Your task to perform on an android device: check storage Image 0: 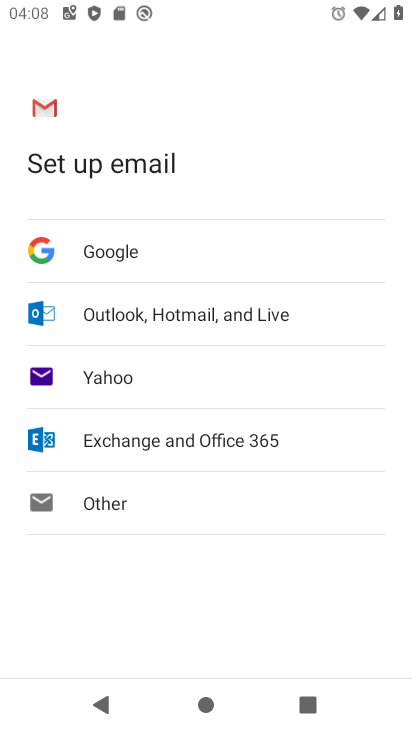
Step 0: press home button
Your task to perform on an android device: check storage Image 1: 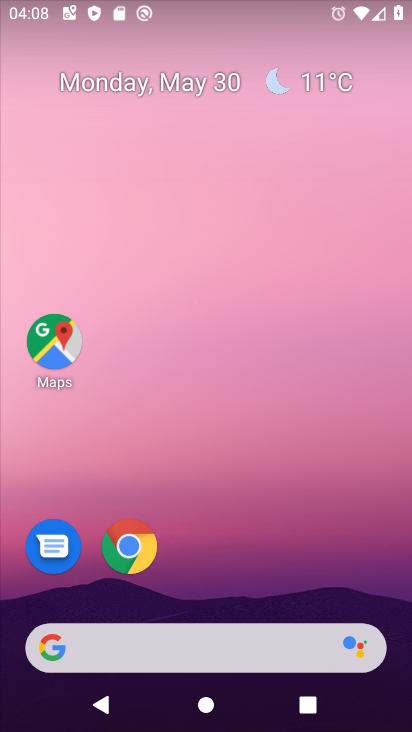
Step 1: drag from (198, 604) to (202, 43)
Your task to perform on an android device: check storage Image 2: 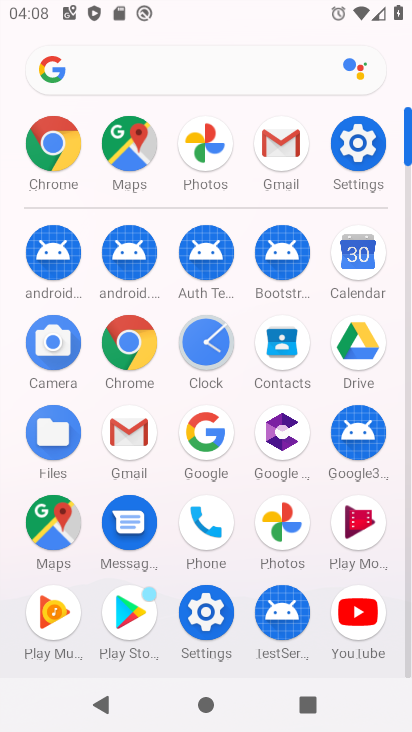
Step 2: click (197, 616)
Your task to perform on an android device: check storage Image 3: 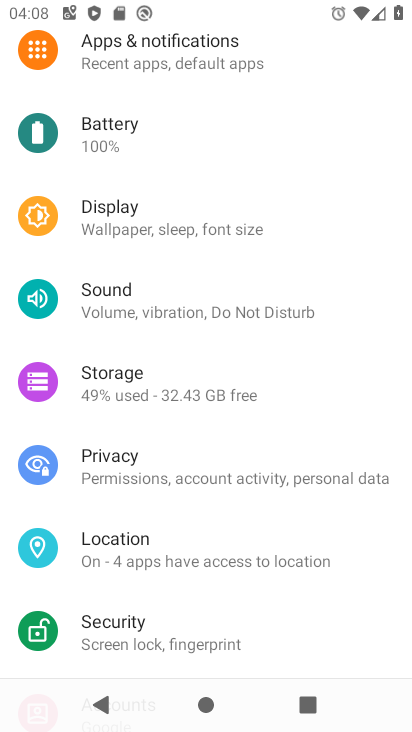
Step 3: click (145, 378)
Your task to perform on an android device: check storage Image 4: 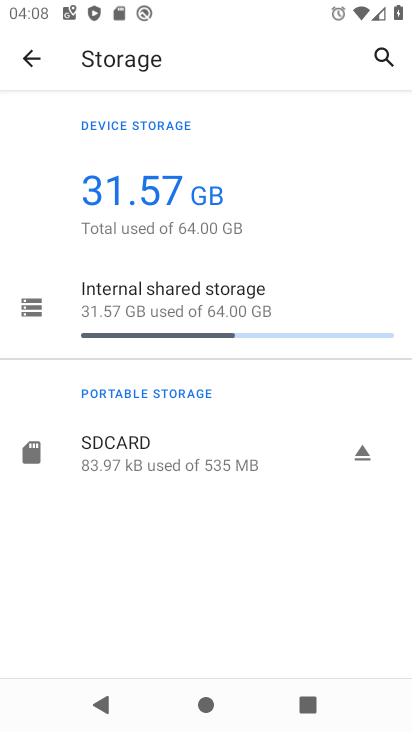
Step 4: task complete